Your task to perform on an android device: Open my contact list Image 0: 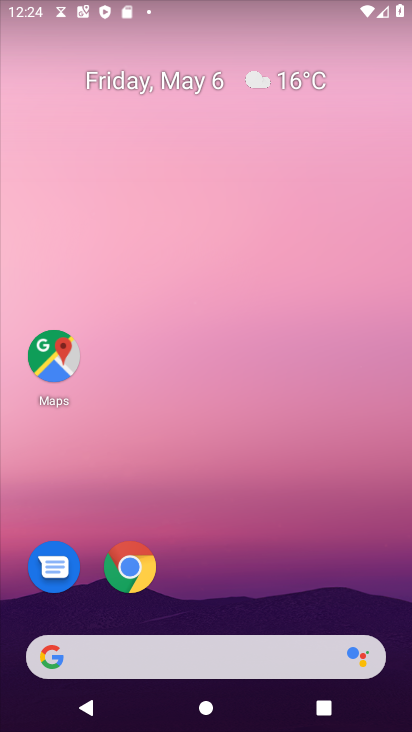
Step 0: drag from (317, 477) to (7, 0)
Your task to perform on an android device: Open my contact list Image 1: 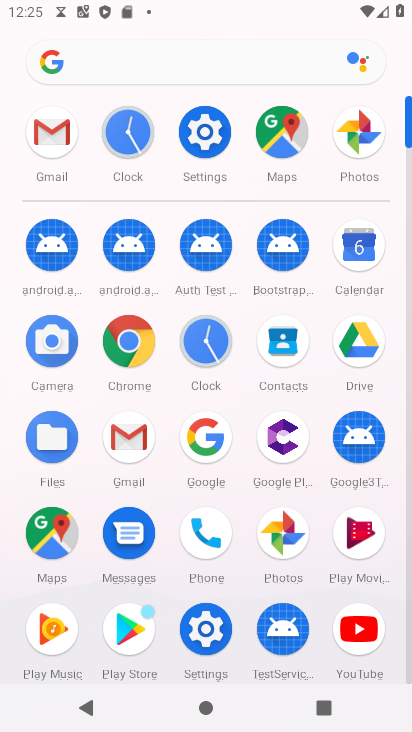
Step 1: click (282, 338)
Your task to perform on an android device: Open my contact list Image 2: 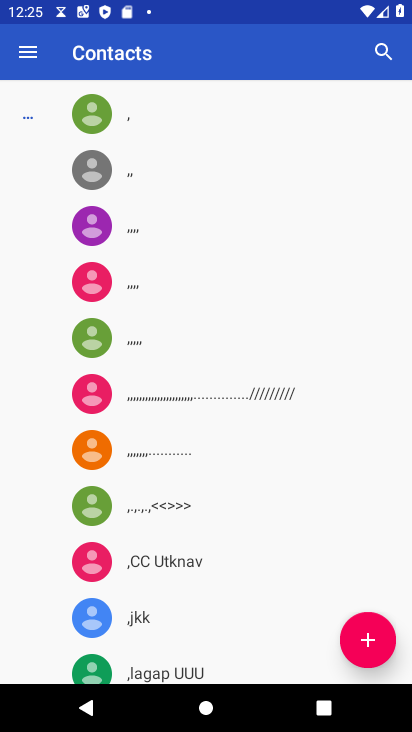
Step 2: task complete